Your task to perform on an android device: Open Google Maps and go to "Timeline" Image 0: 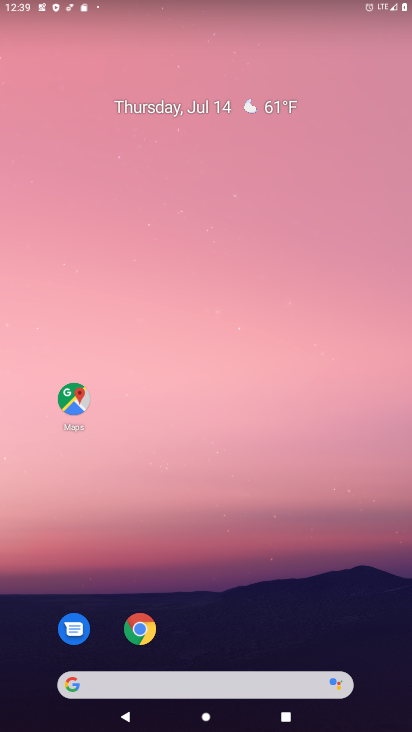
Step 0: press home button
Your task to perform on an android device: Open Google Maps and go to "Timeline" Image 1: 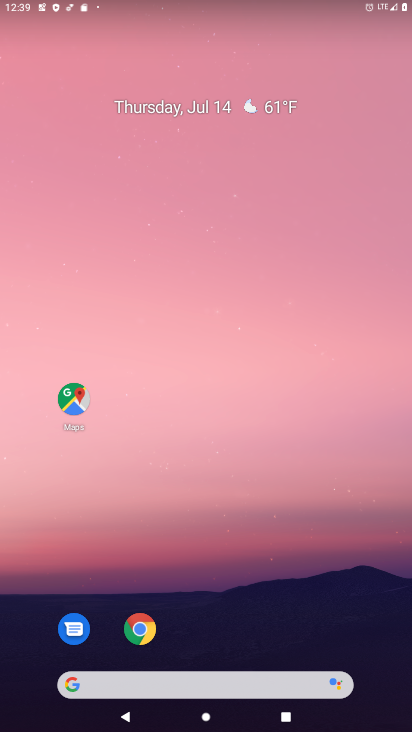
Step 1: click (69, 402)
Your task to perform on an android device: Open Google Maps and go to "Timeline" Image 2: 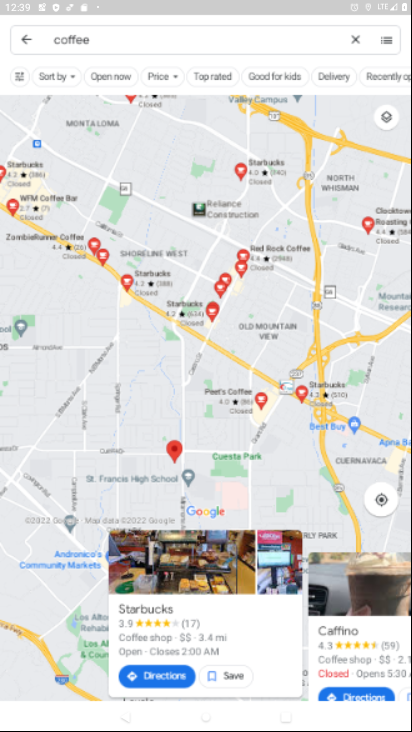
Step 2: click (21, 34)
Your task to perform on an android device: Open Google Maps and go to "Timeline" Image 3: 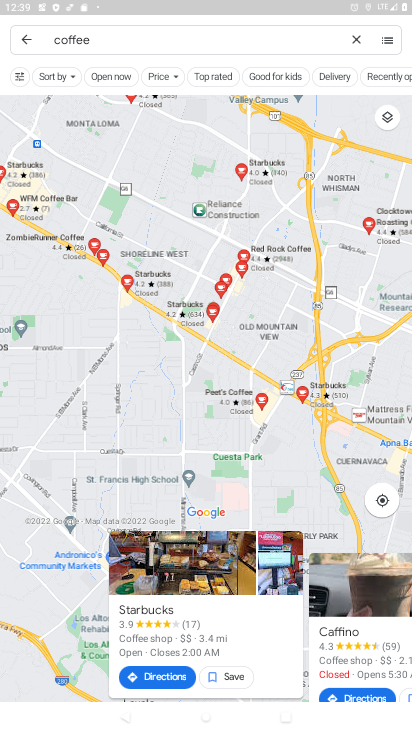
Step 3: click (28, 37)
Your task to perform on an android device: Open Google Maps and go to "Timeline" Image 4: 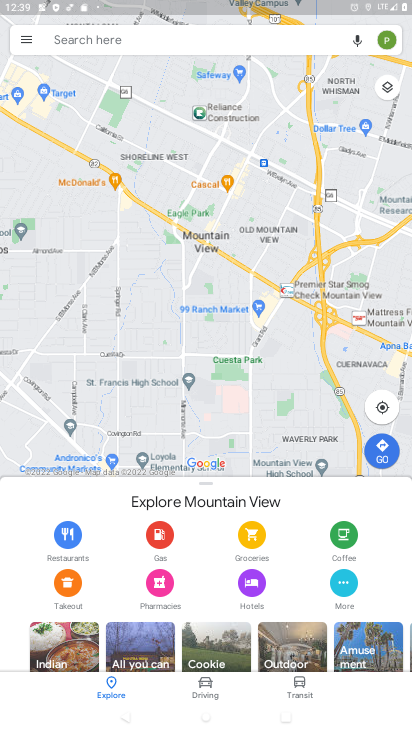
Step 4: click (21, 36)
Your task to perform on an android device: Open Google Maps and go to "Timeline" Image 5: 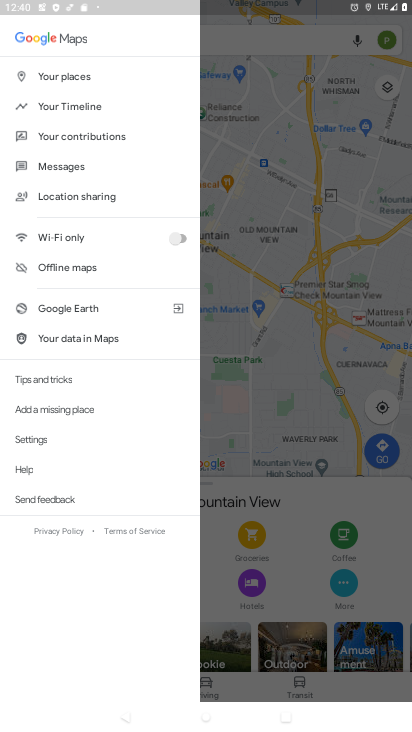
Step 5: click (77, 106)
Your task to perform on an android device: Open Google Maps and go to "Timeline" Image 6: 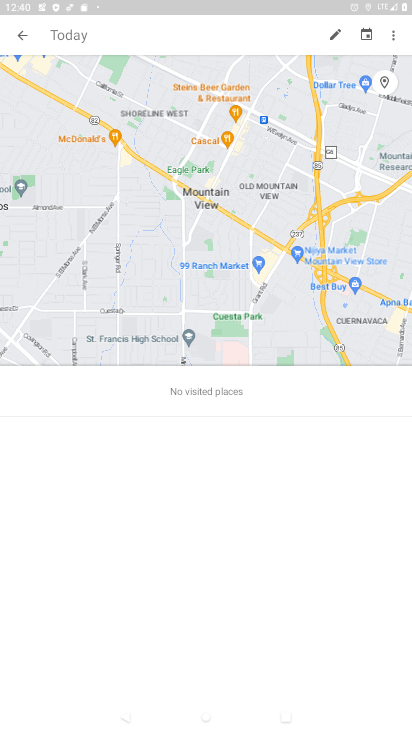
Step 6: task complete